Your task to perform on an android device: Check the news Image 0: 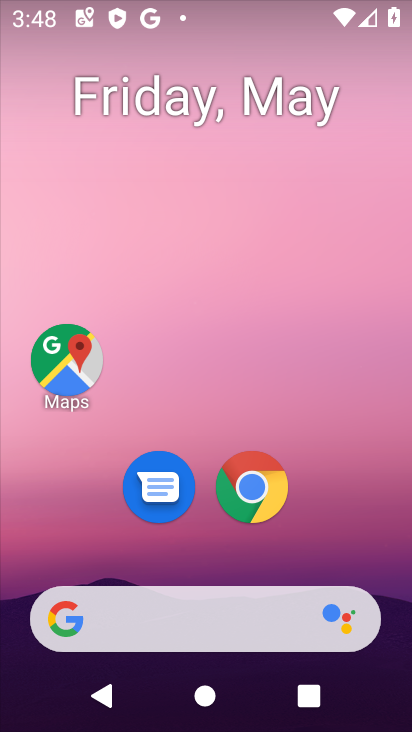
Step 0: drag from (399, 634) to (307, 46)
Your task to perform on an android device: Check the news Image 1: 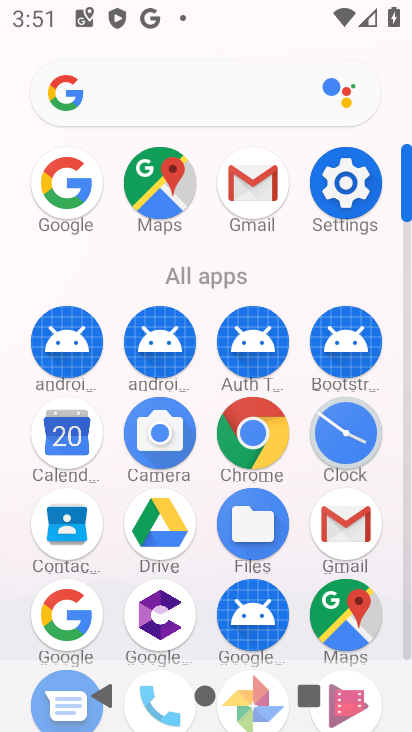
Step 1: click (76, 598)
Your task to perform on an android device: Check the news Image 2: 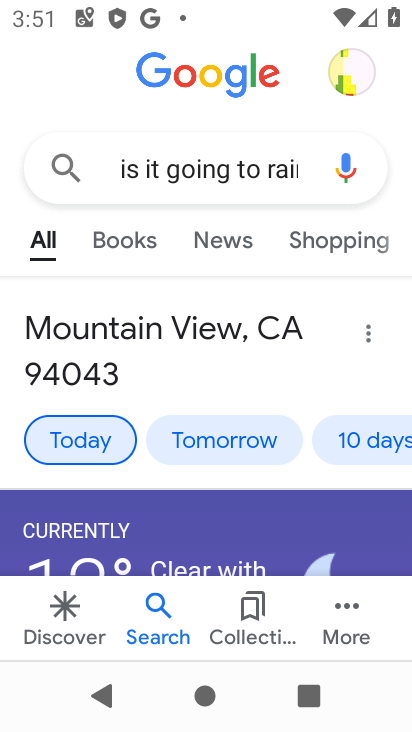
Step 2: press back button
Your task to perform on an android device: Check the news Image 3: 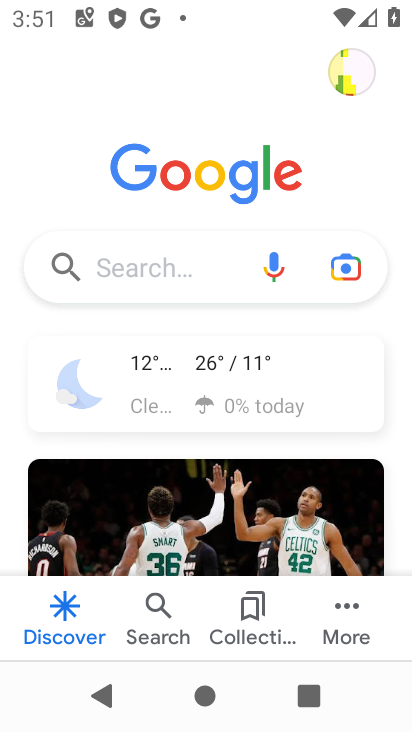
Step 3: click (154, 278)
Your task to perform on an android device: Check the news Image 4: 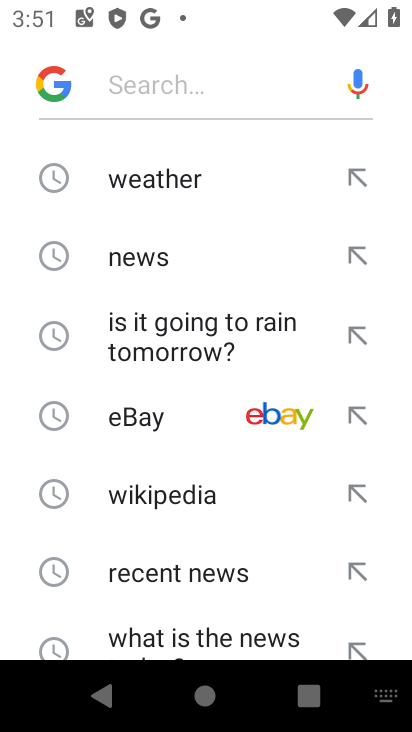
Step 4: click (163, 237)
Your task to perform on an android device: Check the news Image 5: 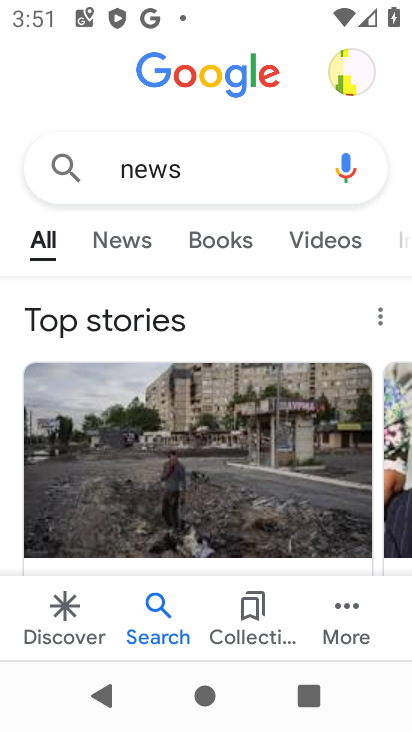
Step 5: task complete